Your task to perform on an android device: When is my next meeting? Image 0: 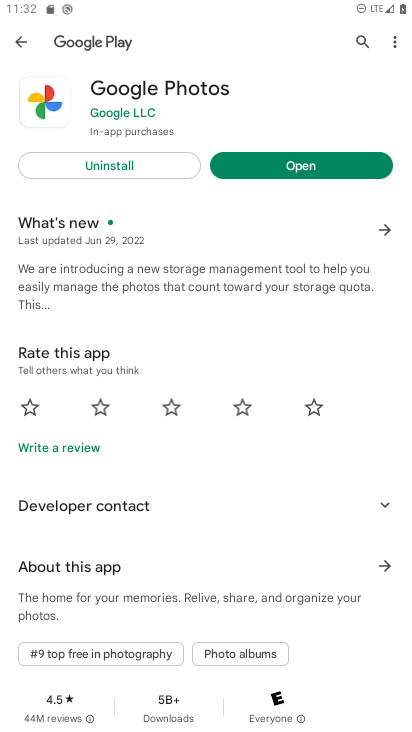
Step 0: press home button
Your task to perform on an android device: When is my next meeting? Image 1: 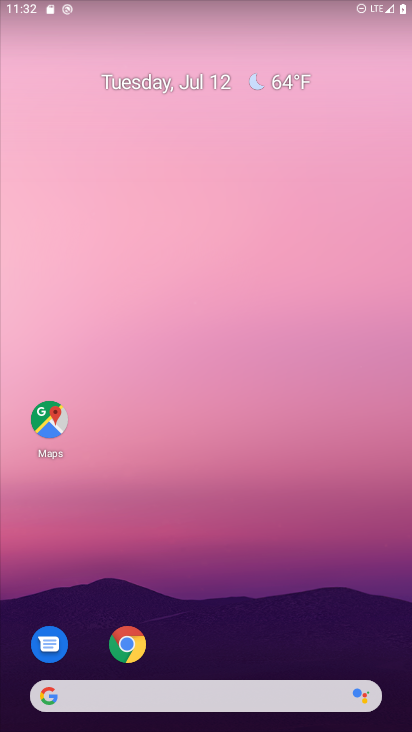
Step 1: drag from (226, 641) to (233, 192)
Your task to perform on an android device: When is my next meeting? Image 2: 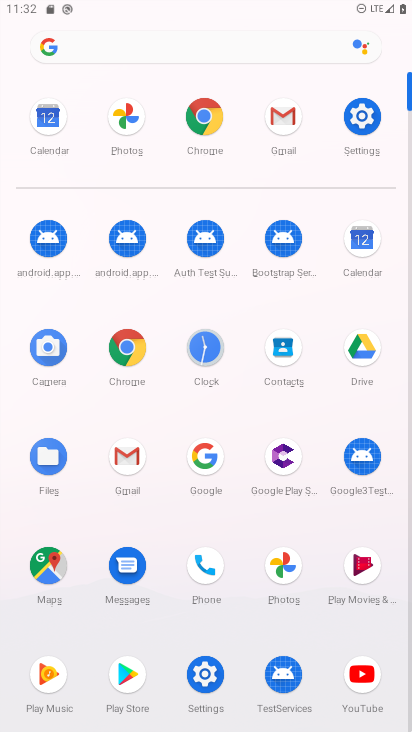
Step 2: click (364, 122)
Your task to perform on an android device: When is my next meeting? Image 3: 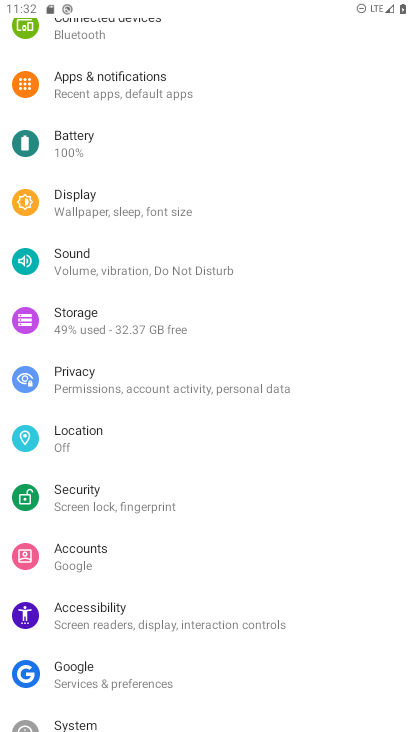
Step 3: press home button
Your task to perform on an android device: When is my next meeting? Image 4: 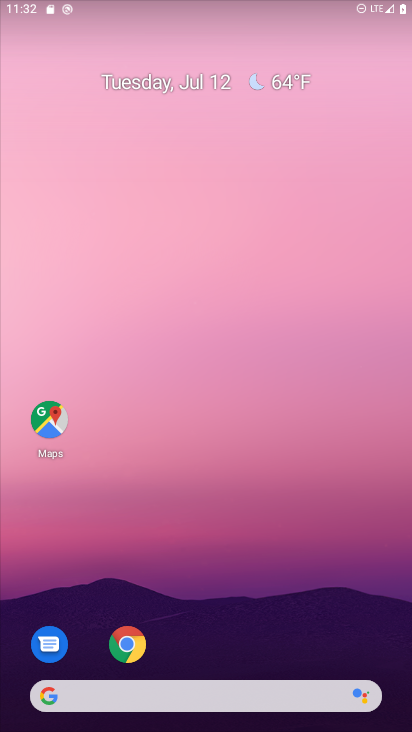
Step 4: drag from (223, 632) to (237, 250)
Your task to perform on an android device: When is my next meeting? Image 5: 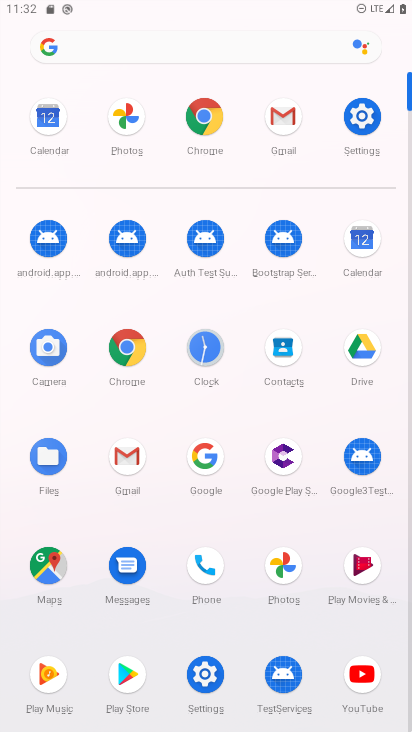
Step 5: click (45, 118)
Your task to perform on an android device: When is my next meeting? Image 6: 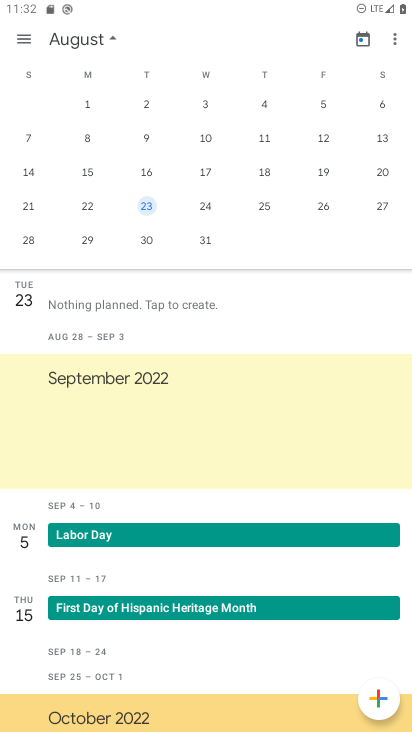
Step 6: task complete